Your task to perform on an android device: turn off wifi Image 0: 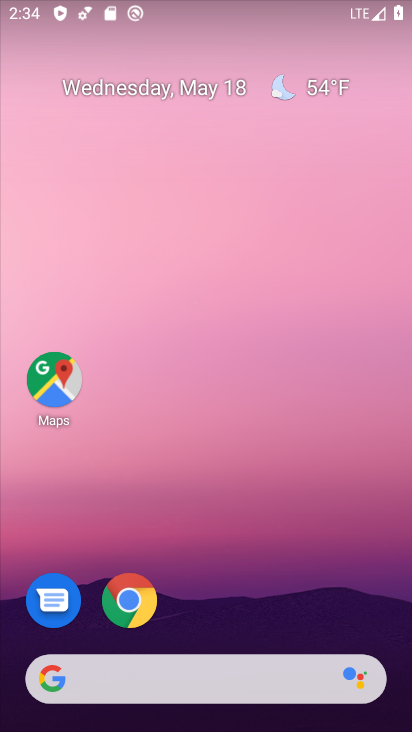
Step 0: press home button
Your task to perform on an android device: turn off wifi Image 1: 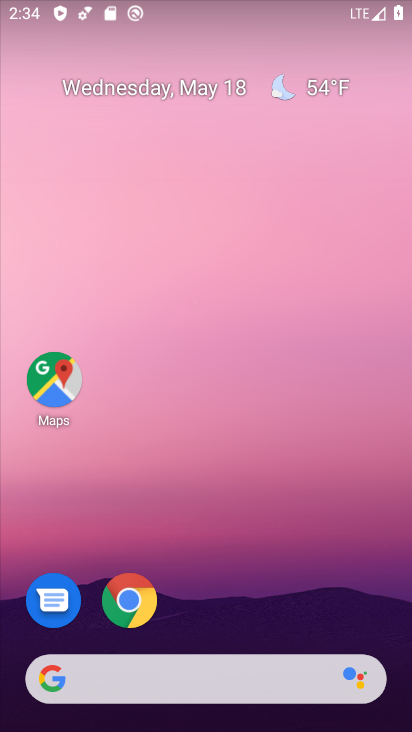
Step 1: drag from (200, 668) to (326, 165)
Your task to perform on an android device: turn off wifi Image 2: 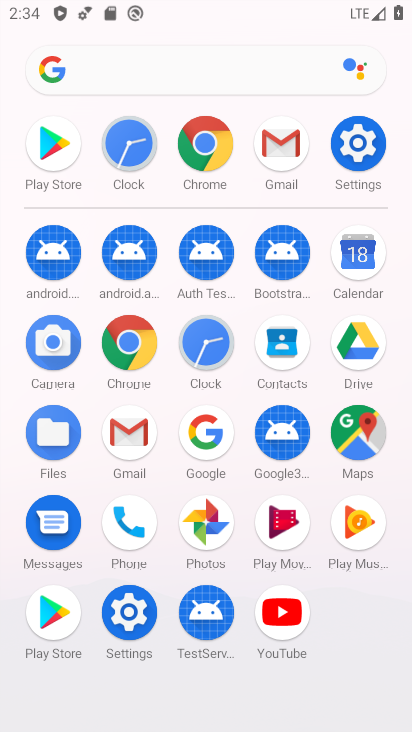
Step 2: click (346, 126)
Your task to perform on an android device: turn off wifi Image 3: 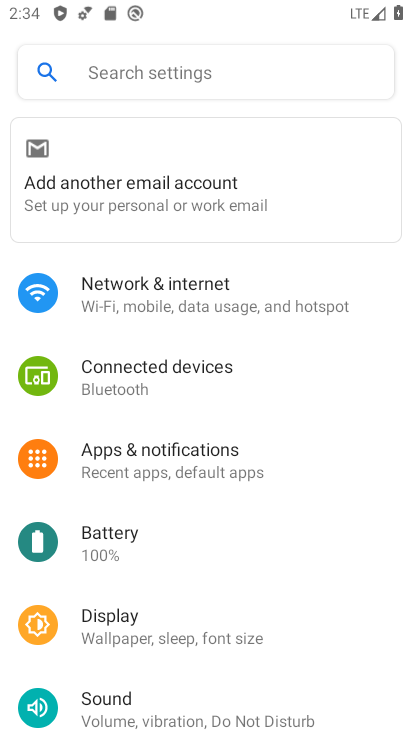
Step 3: click (172, 296)
Your task to perform on an android device: turn off wifi Image 4: 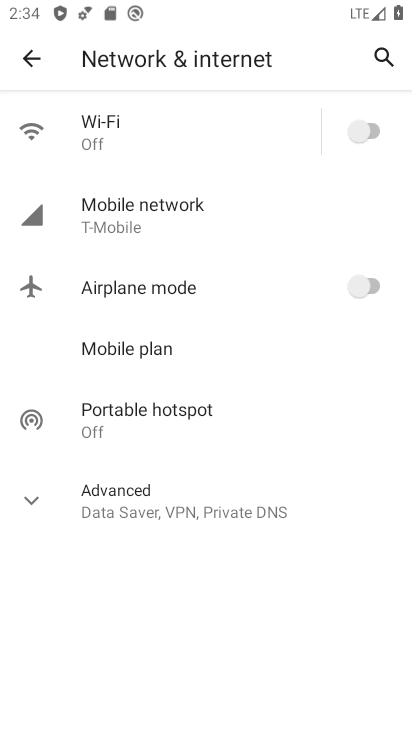
Step 4: task complete